Your task to perform on an android device: open app "Adobe Acrobat Reader: Edit PDF" (install if not already installed) Image 0: 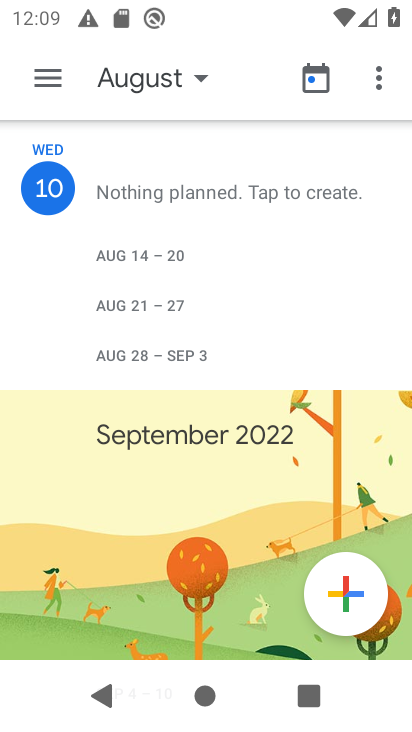
Step 0: press home button
Your task to perform on an android device: open app "Adobe Acrobat Reader: Edit PDF" (install if not already installed) Image 1: 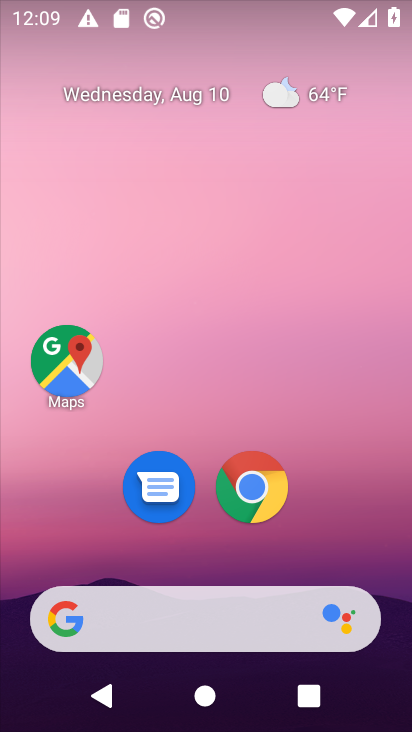
Step 1: drag from (265, 504) to (262, 18)
Your task to perform on an android device: open app "Adobe Acrobat Reader: Edit PDF" (install if not already installed) Image 2: 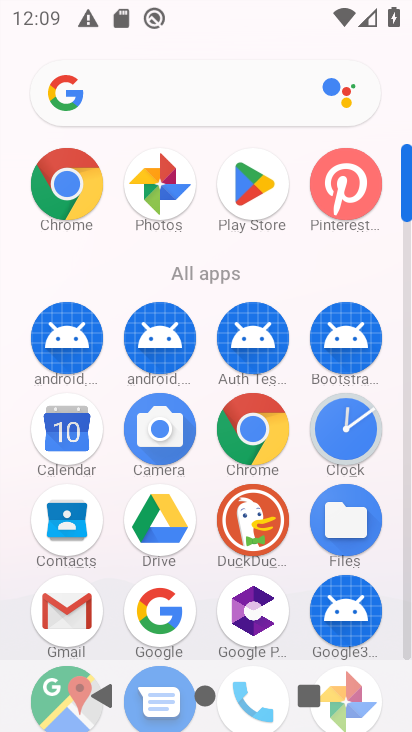
Step 2: click (230, 168)
Your task to perform on an android device: open app "Adobe Acrobat Reader: Edit PDF" (install if not already installed) Image 3: 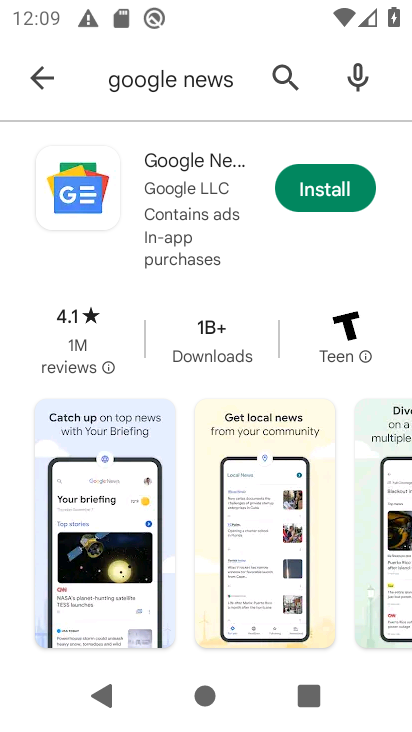
Step 3: click (187, 83)
Your task to perform on an android device: open app "Adobe Acrobat Reader: Edit PDF" (install if not already installed) Image 4: 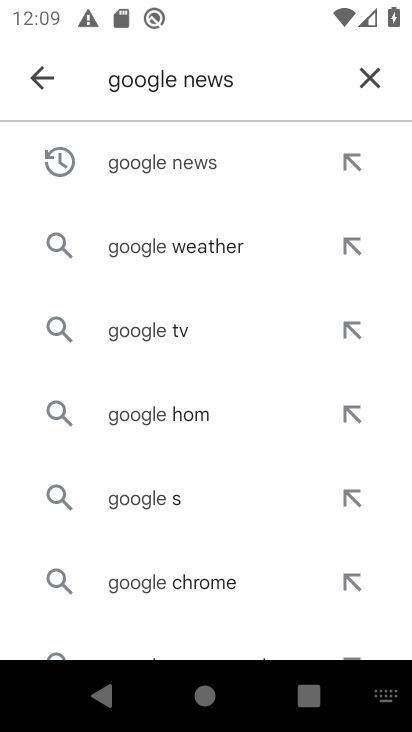
Step 4: click (369, 75)
Your task to perform on an android device: open app "Adobe Acrobat Reader: Edit PDF" (install if not already installed) Image 5: 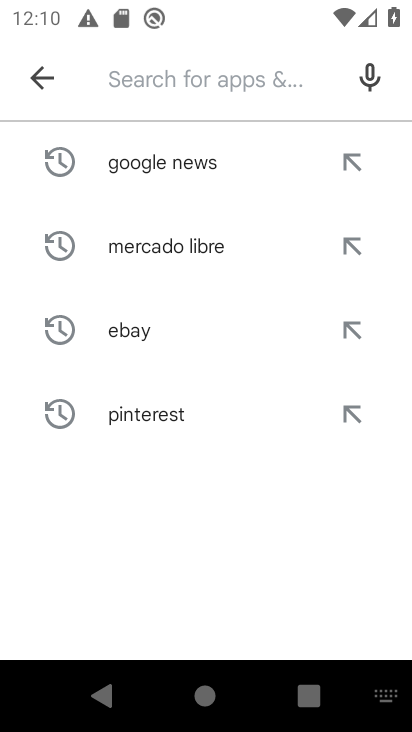
Step 5: type "Adobe Acrobat reader"
Your task to perform on an android device: open app "Adobe Acrobat Reader: Edit PDF" (install if not already installed) Image 6: 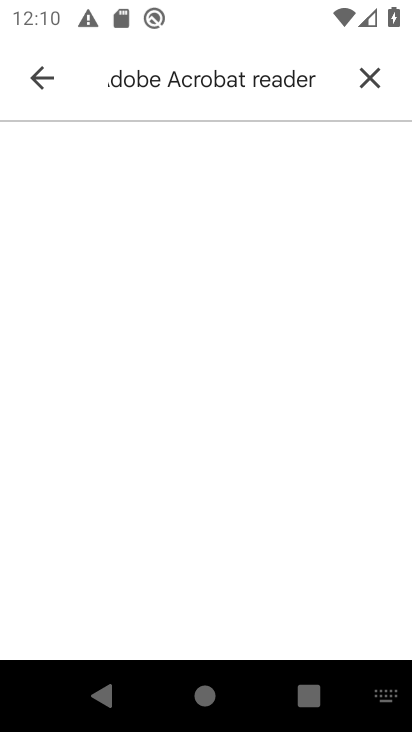
Step 6: click (304, 194)
Your task to perform on an android device: open app "Adobe Acrobat Reader: Edit PDF" (install if not already installed) Image 7: 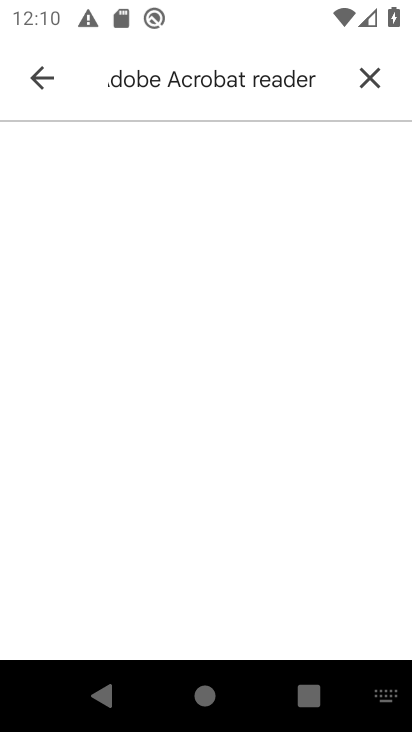
Step 7: drag from (279, 190) to (266, 335)
Your task to perform on an android device: open app "Adobe Acrobat Reader: Edit PDF" (install if not already installed) Image 8: 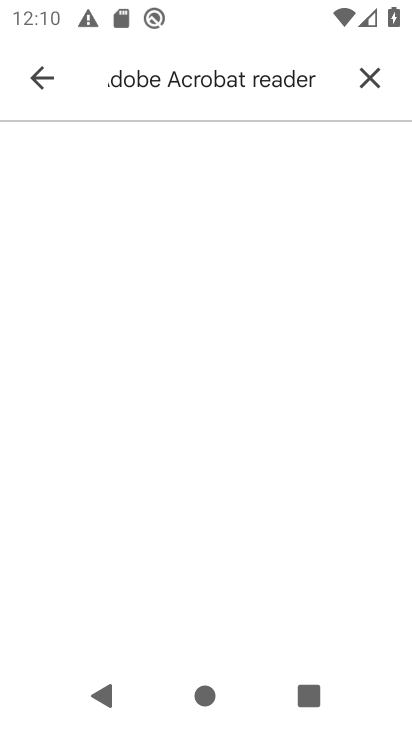
Step 8: click (32, 77)
Your task to perform on an android device: open app "Adobe Acrobat Reader: Edit PDF" (install if not already installed) Image 9: 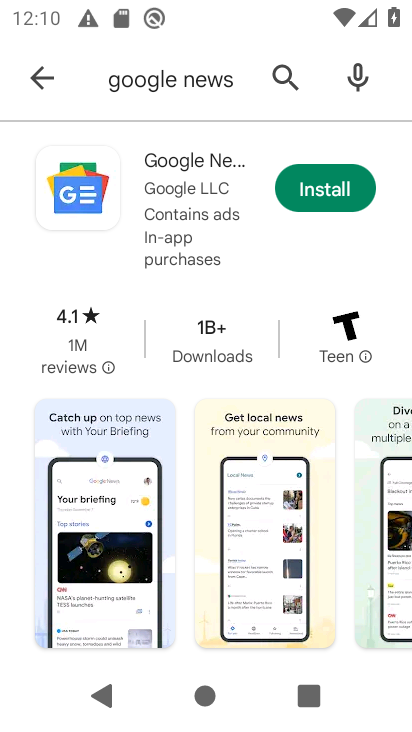
Step 9: click (37, 76)
Your task to perform on an android device: open app "Adobe Acrobat Reader: Edit PDF" (install if not already installed) Image 10: 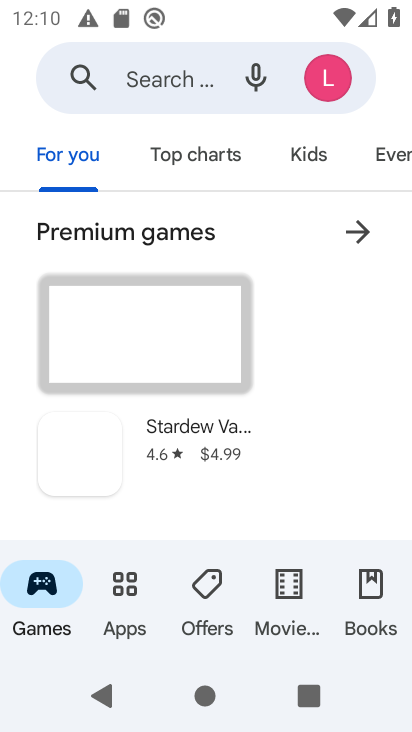
Step 10: click (169, 78)
Your task to perform on an android device: open app "Adobe Acrobat Reader: Edit PDF" (install if not already installed) Image 11: 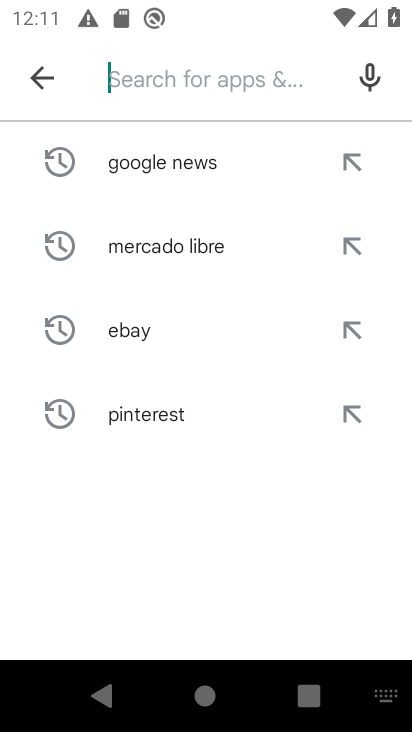
Step 11: type "Adobe Acrobat reader"
Your task to perform on an android device: open app "Adobe Acrobat Reader: Edit PDF" (install if not already installed) Image 12: 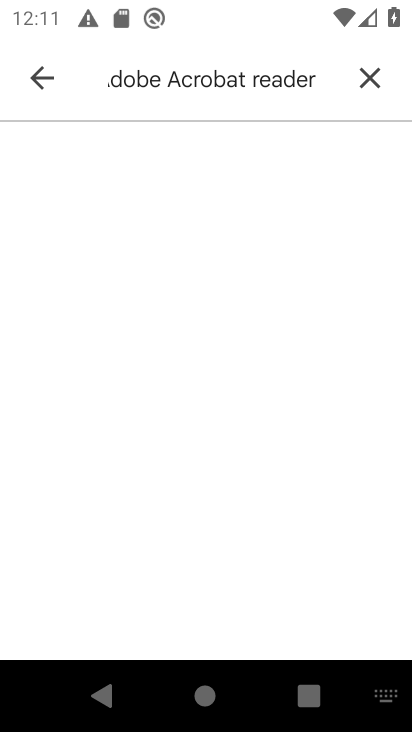
Step 12: task complete